Your task to perform on an android device: turn off priority inbox in the gmail app Image 0: 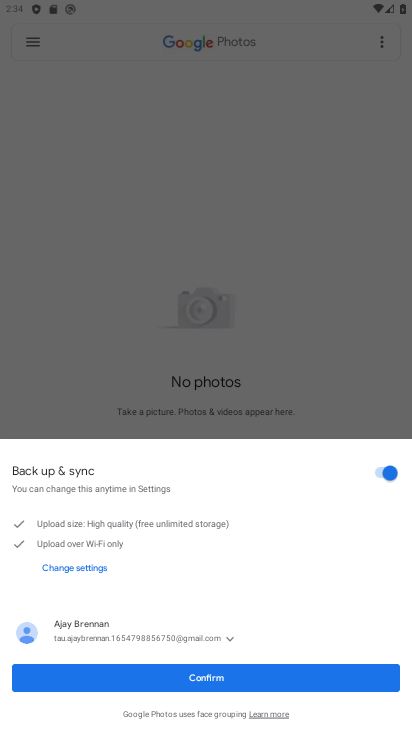
Step 0: press home button
Your task to perform on an android device: turn off priority inbox in the gmail app Image 1: 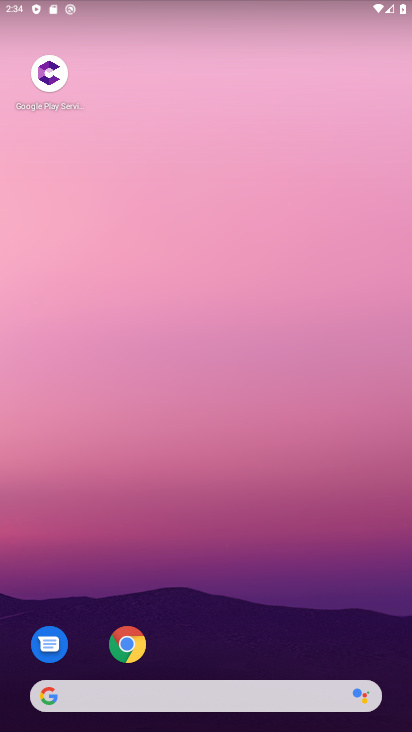
Step 1: drag from (205, 686) to (255, 34)
Your task to perform on an android device: turn off priority inbox in the gmail app Image 2: 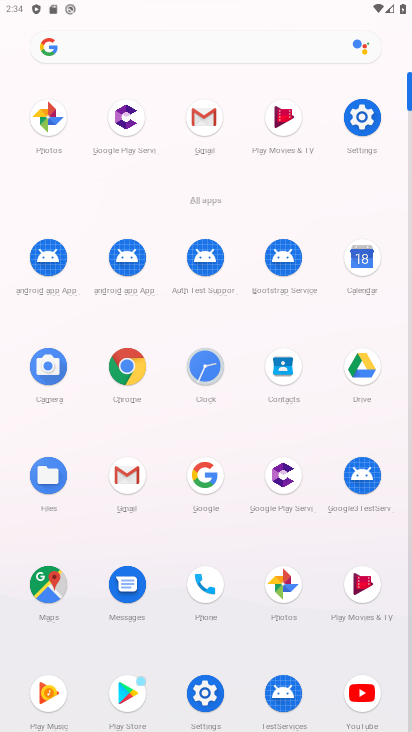
Step 2: click (137, 468)
Your task to perform on an android device: turn off priority inbox in the gmail app Image 3: 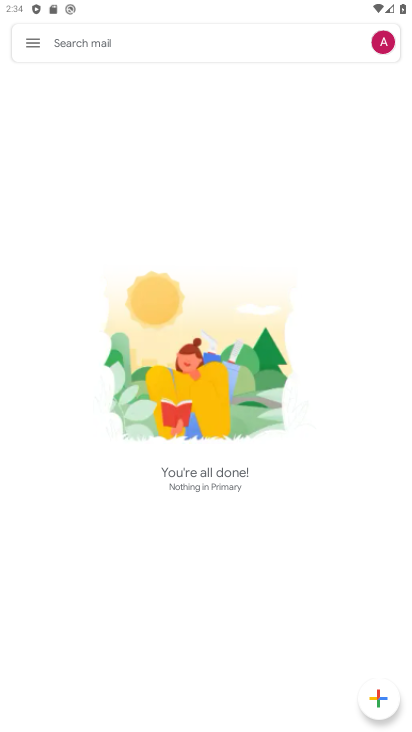
Step 3: click (37, 53)
Your task to perform on an android device: turn off priority inbox in the gmail app Image 4: 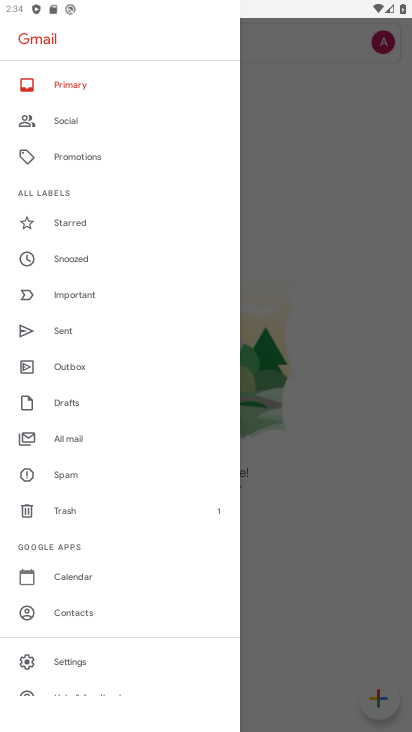
Step 4: click (38, 668)
Your task to perform on an android device: turn off priority inbox in the gmail app Image 5: 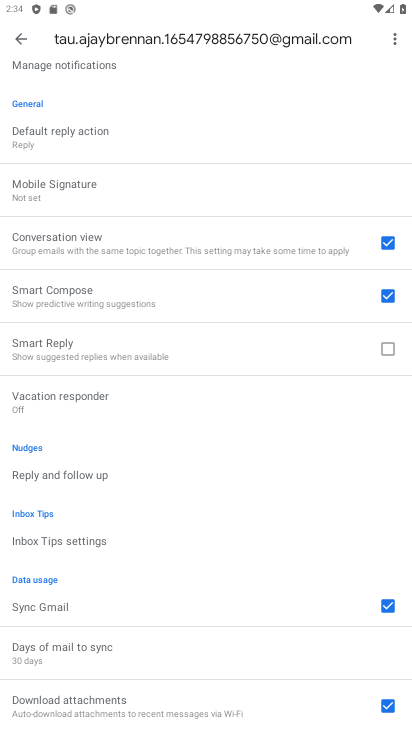
Step 5: drag from (136, 637) to (130, 289)
Your task to perform on an android device: turn off priority inbox in the gmail app Image 6: 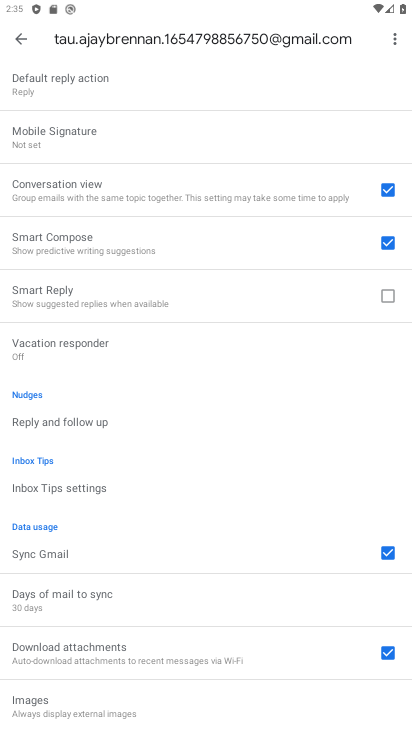
Step 6: drag from (103, 153) to (115, 578)
Your task to perform on an android device: turn off priority inbox in the gmail app Image 7: 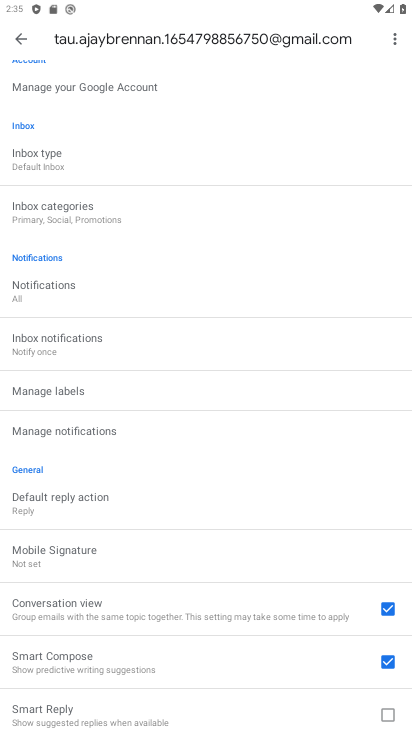
Step 7: click (73, 161)
Your task to perform on an android device: turn off priority inbox in the gmail app Image 8: 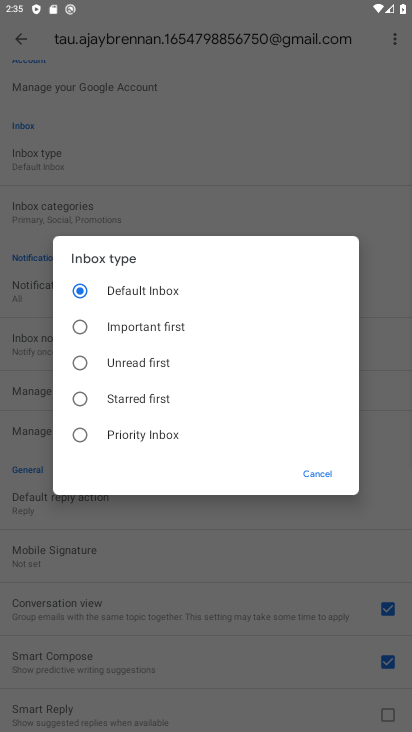
Step 8: click (152, 296)
Your task to perform on an android device: turn off priority inbox in the gmail app Image 9: 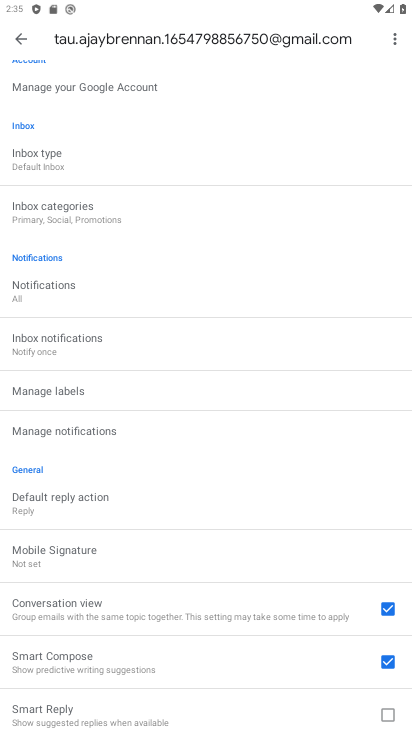
Step 9: task complete